Your task to perform on an android device: Open settings Image 0: 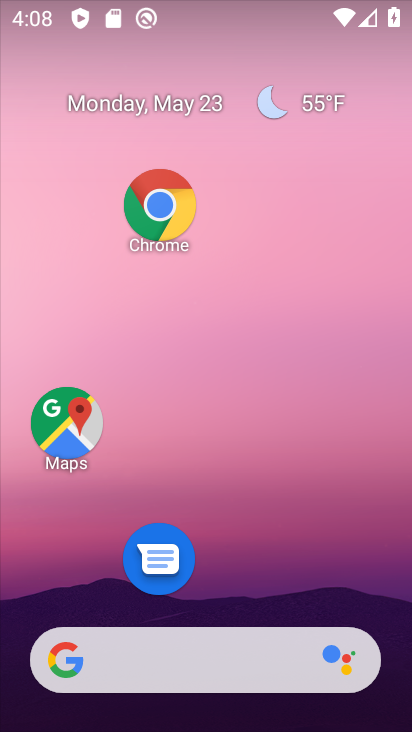
Step 0: click (98, 154)
Your task to perform on an android device: Open settings Image 1: 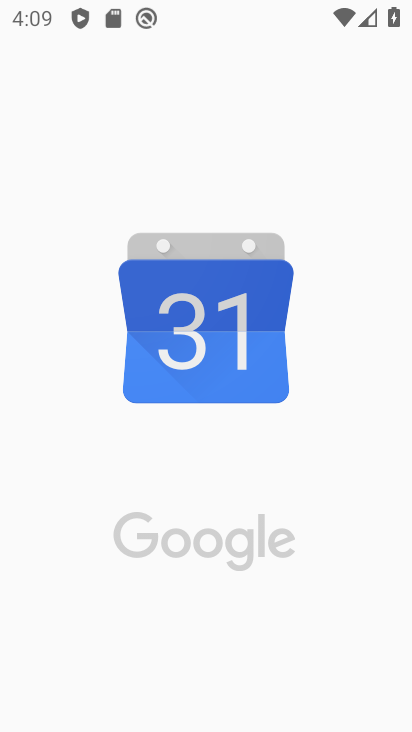
Step 1: drag from (319, 581) to (197, 99)
Your task to perform on an android device: Open settings Image 2: 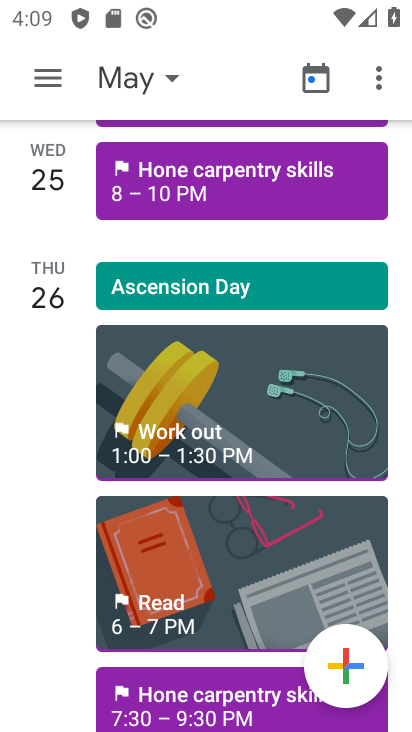
Step 2: press back button
Your task to perform on an android device: Open settings Image 3: 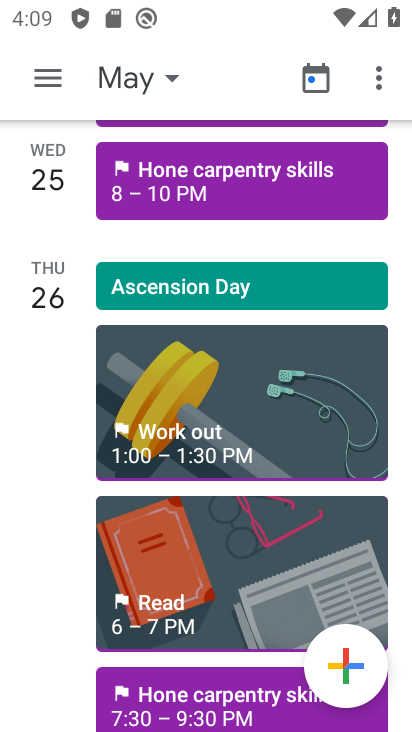
Step 3: press back button
Your task to perform on an android device: Open settings Image 4: 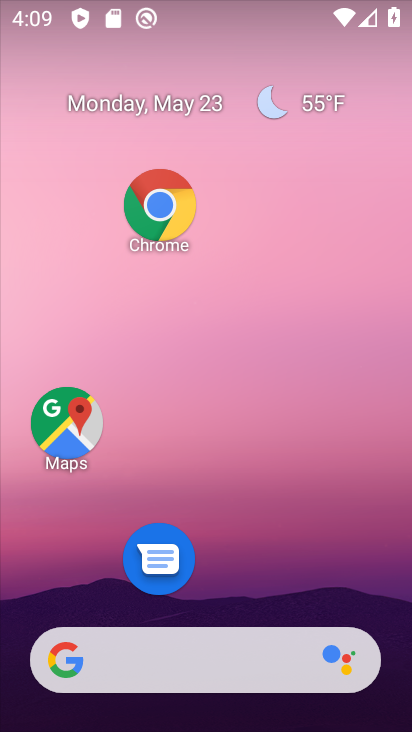
Step 4: drag from (261, 712) to (60, 21)
Your task to perform on an android device: Open settings Image 5: 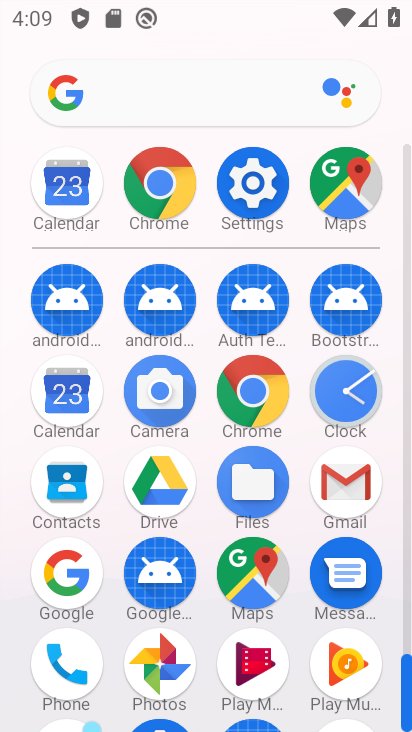
Step 5: click (246, 200)
Your task to perform on an android device: Open settings Image 6: 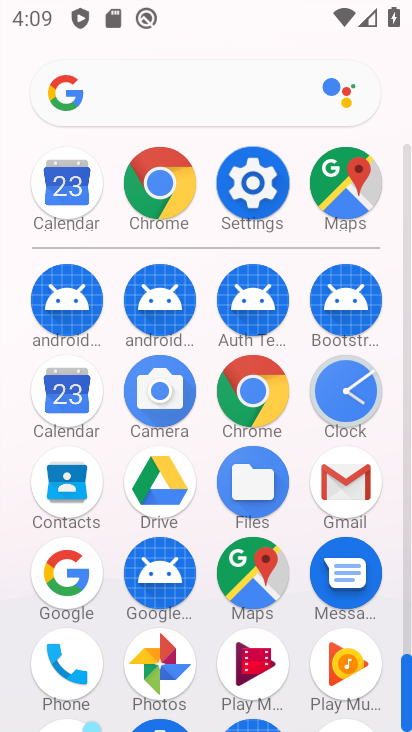
Step 6: click (246, 200)
Your task to perform on an android device: Open settings Image 7: 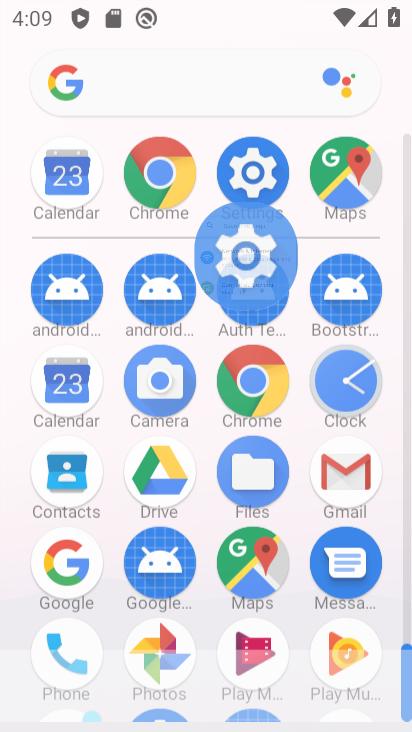
Step 7: click (245, 201)
Your task to perform on an android device: Open settings Image 8: 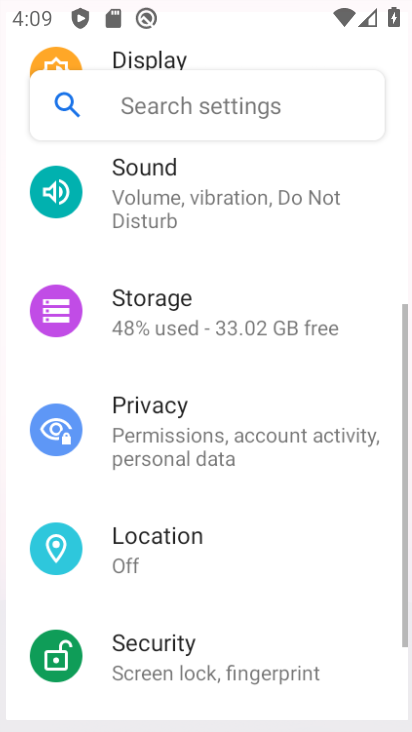
Step 8: click (245, 201)
Your task to perform on an android device: Open settings Image 9: 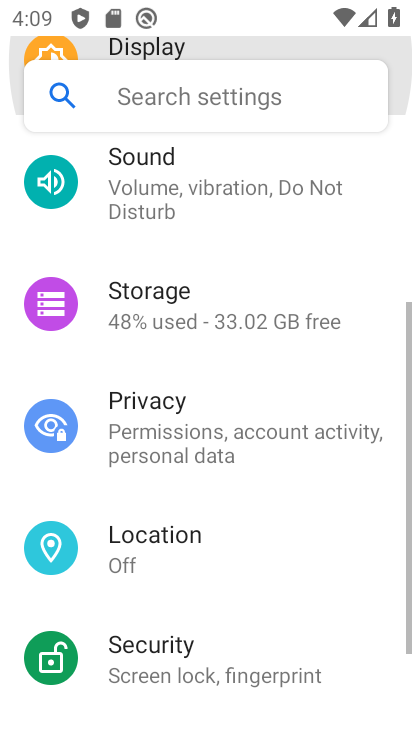
Step 9: click (245, 201)
Your task to perform on an android device: Open settings Image 10: 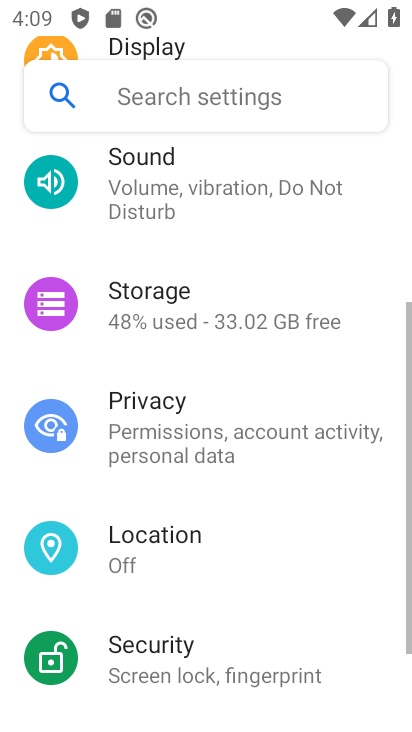
Step 10: click (245, 201)
Your task to perform on an android device: Open settings Image 11: 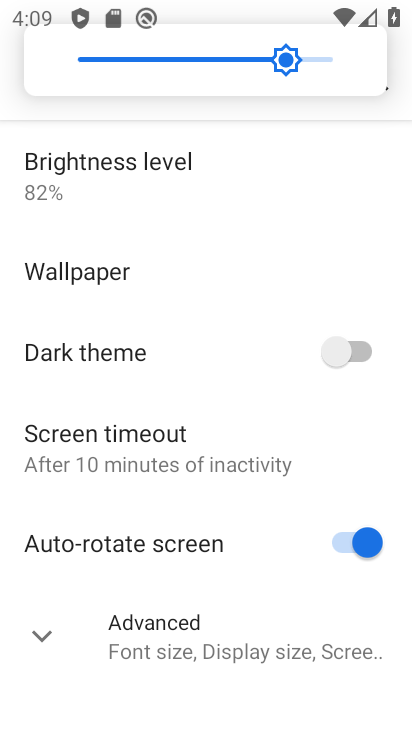
Step 11: drag from (227, 503) to (190, 264)
Your task to perform on an android device: Open settings Image 12: 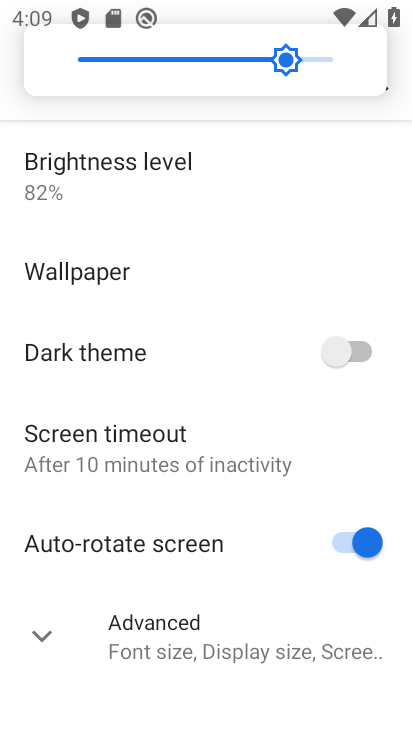
Step 12: drag from (205, 488) to (165, 201)
Your task to perform on an android device: Open settings Image 13: 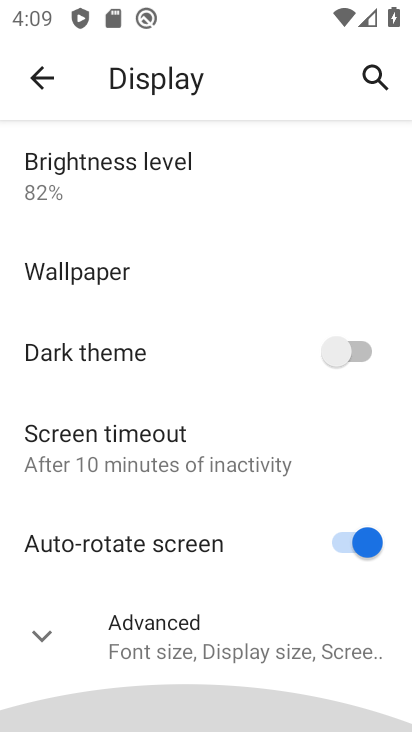
Step 13: drag from (179, 482) to (169, 199)
Your task to perform on an android device: Open settings Image 14: 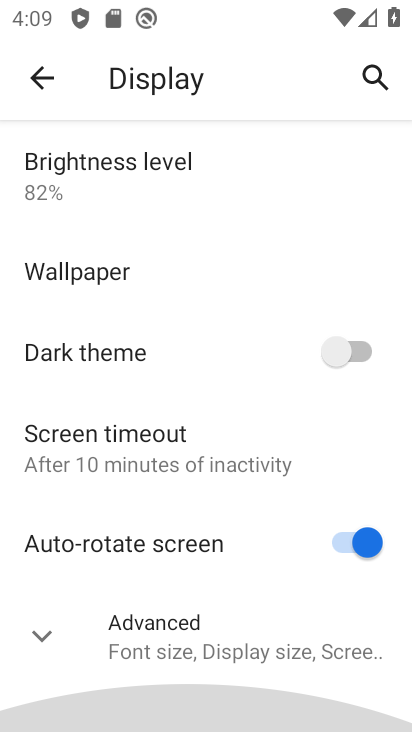
Step 14: drag from (197, 504) to (188, 258)
Your task to perform on an android device: Open settings Image 15: 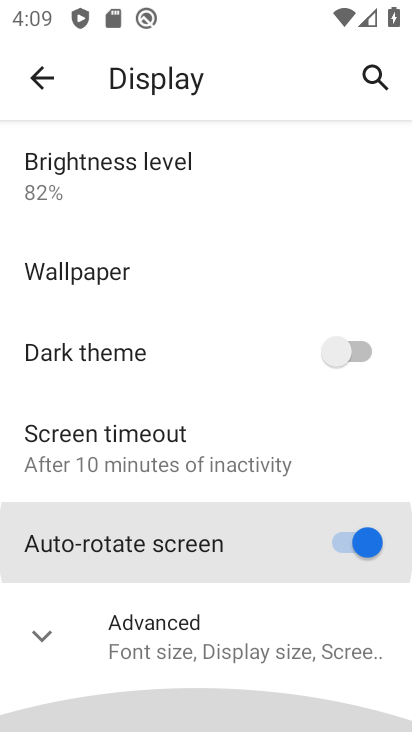
Step 15: drag from (201, 450) to (181, 173)
Your task to perform on an android device: Open settings Image 16: 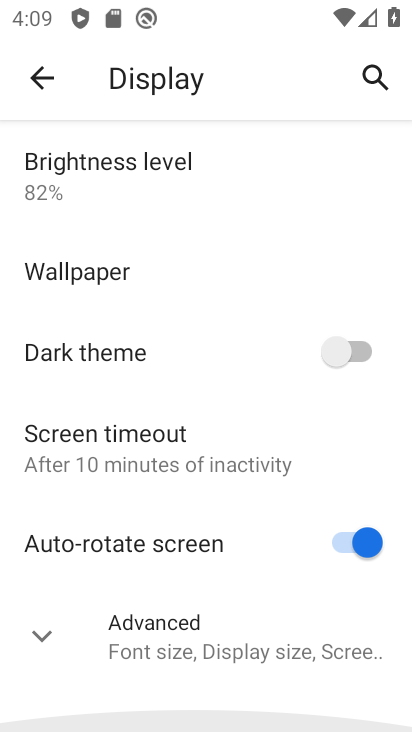
Step 16: drag from (159, 449) to (154, 216)
Your task to perform on an android device: Open settings Image 17: 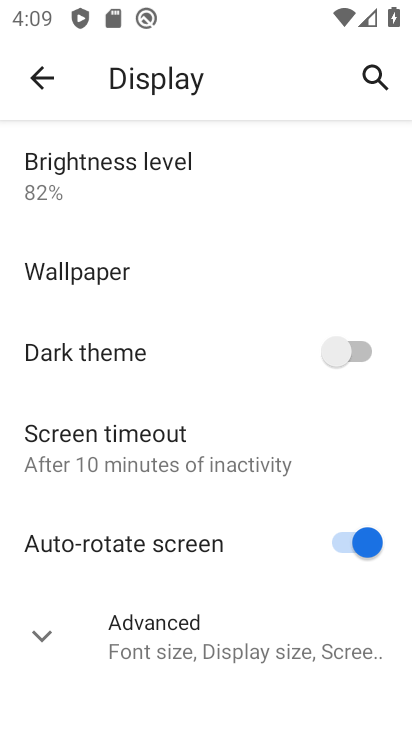
Step 17: click (31, 83)
Your task to perform on an android device: Open settings Image 18: 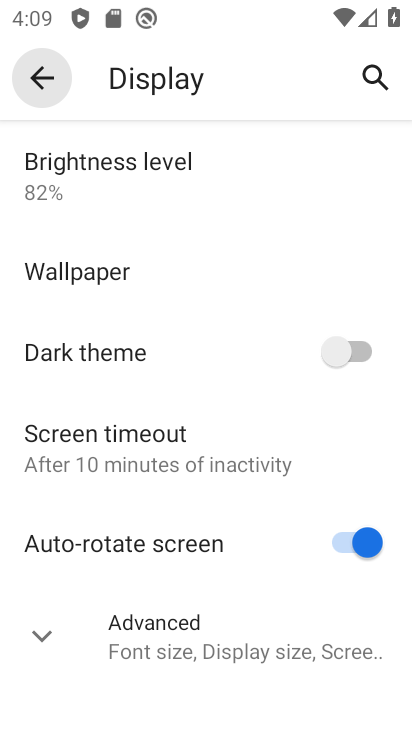
Step 18: task complete